Your task to perform on an android device: Is it going to rain tomorrow? Image 0: 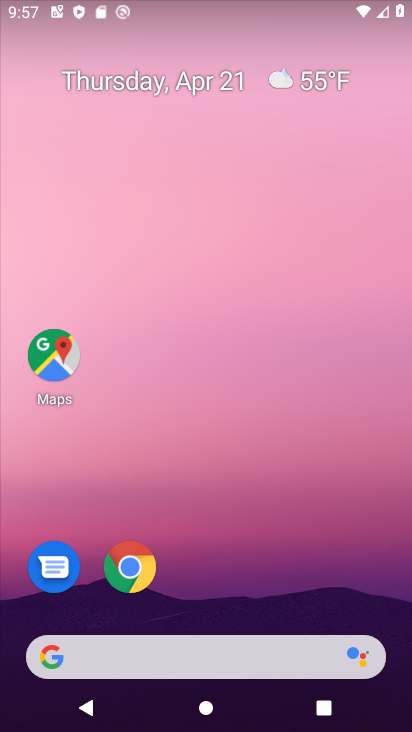
Step 0: click (312, 79)
Your task to perform on an android device: Is it going to rain tomorrow? Image 1: 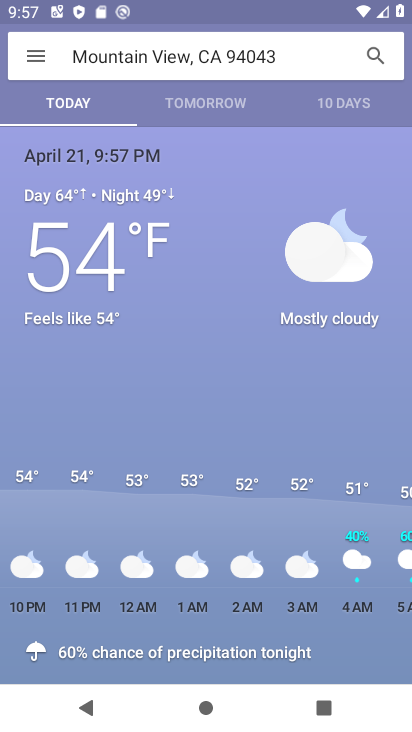
Step 1: click (212, 105)
Your task to perform on an android device: Is it going to rain tomorrow? Image 2: 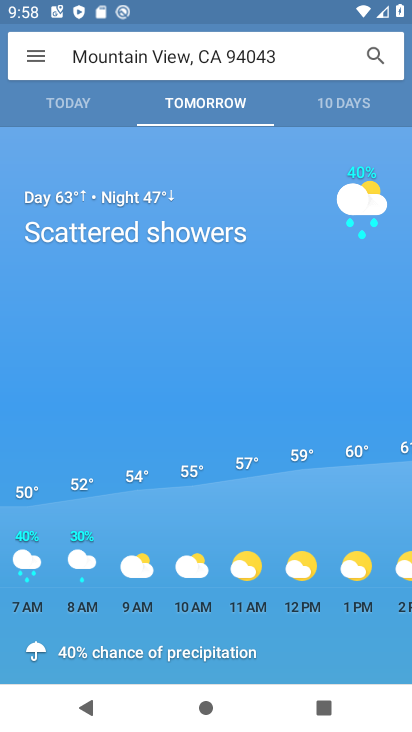
Step 2: task complete